Your task to perform on an android device: turn on showing notifications on the lock screen Image 0: 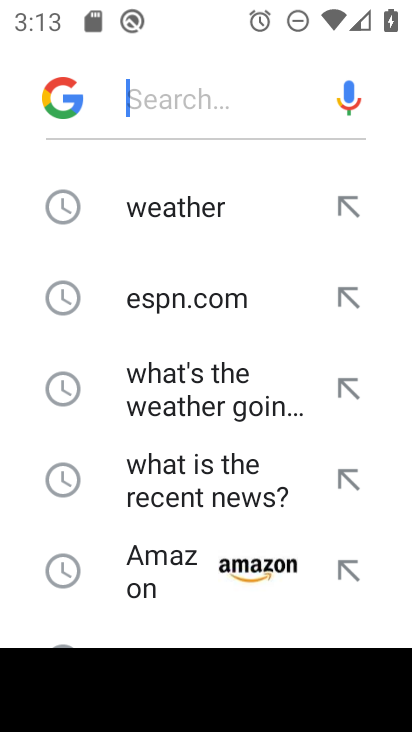
Step 0: press back button
Your task to perform on an android device: turn on showing notifications on the lock screen Image 1: 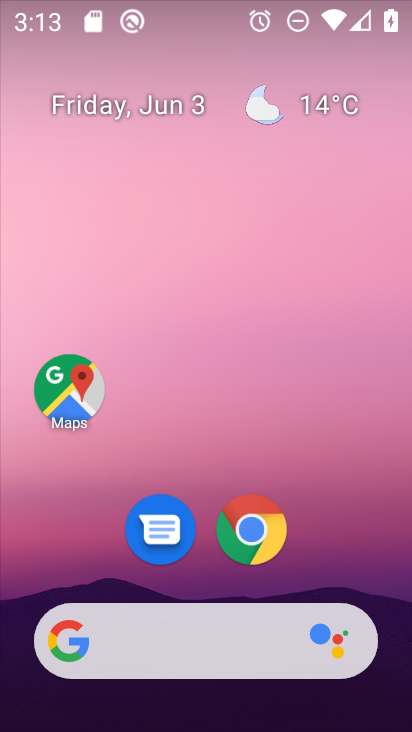
Step 1: drag from (354, 557) to (354, 192)
Your task to perform on an android device: turn on showing notifications on the lock screen Image 2: 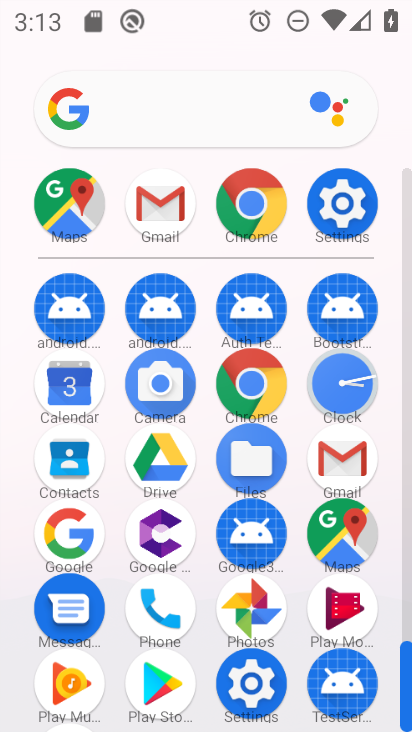
Step 2: click (355, 212)
Your task to perform on an android device: turn on showing notifications on the lock screen Image 3: 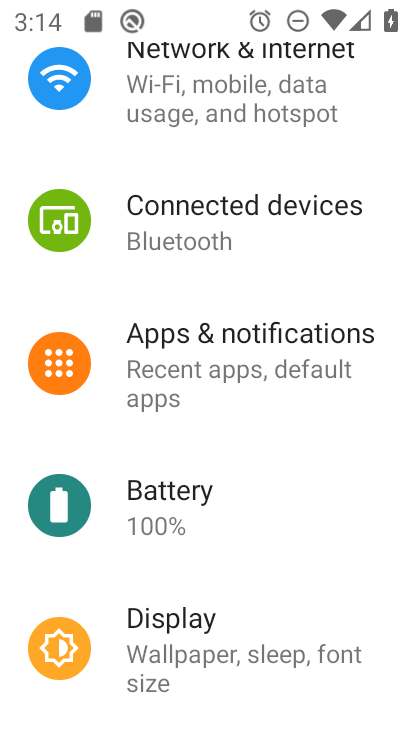
Step 3: drag from (362, 269) to (365, 369)
Your task to perform on an android device: turn on showing notifications on the lock screen Image 4: 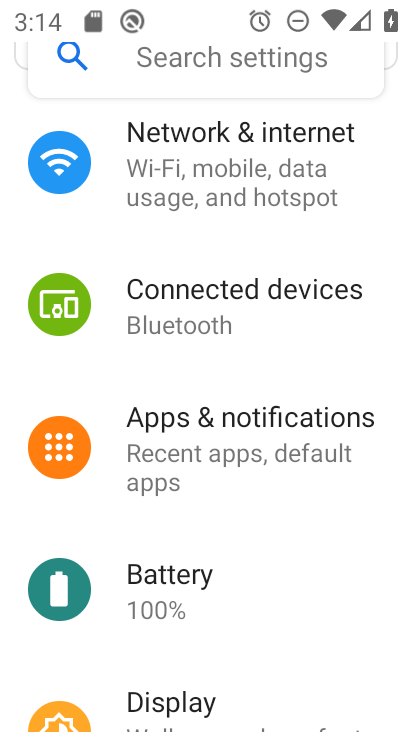
Step 4: drag from (370, 216) to (382, 372)
Your task to perform on an android device: turn on showing notifications on the lock screen Image 5: 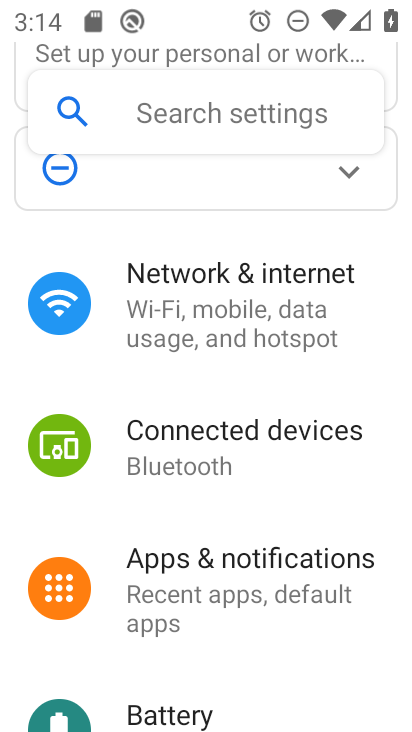
Step 5: drag from (370, 251) to (365, 405)
Your task to perform on an android device: turn on showing notifications on the lock screen Image 6: 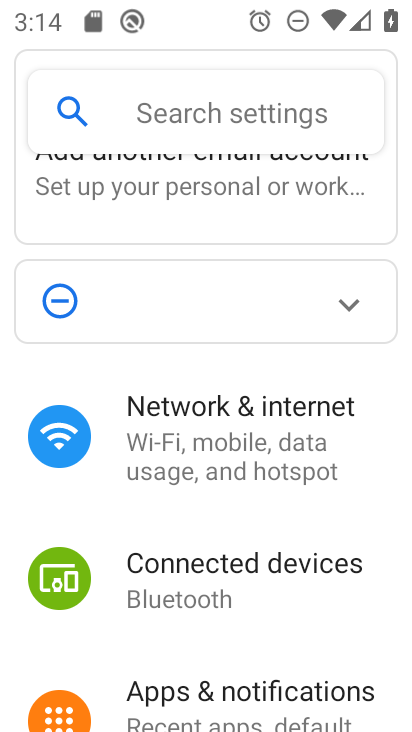
Step 6: drag from (371, 373) to (379, 490)
Your task to perform on an android device: turn on showing notifications on the lock screen Image 7: 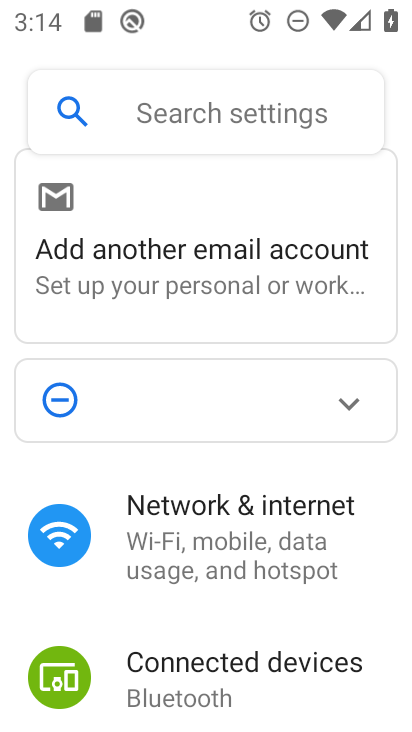
Step 7: drag from (351, 530) to (346, 397)
Your task to perform on an android device: turn on showing notifications on the lock screen Image 8: 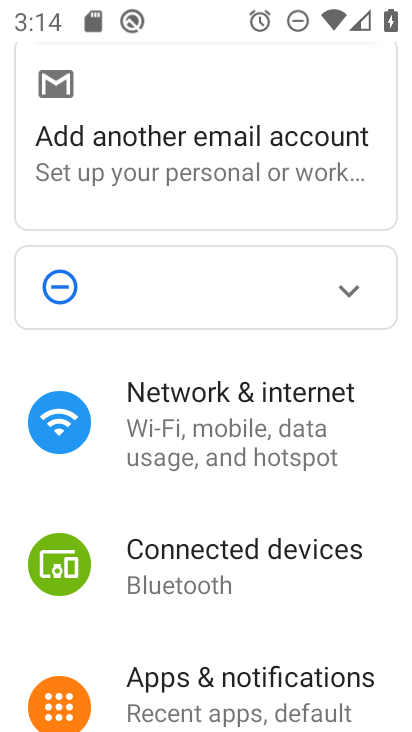
Step 8: drag from (330, 349) to (294, 444)
Your task to perform on an android device: turn on showing notifications on the lock screen Image 9: 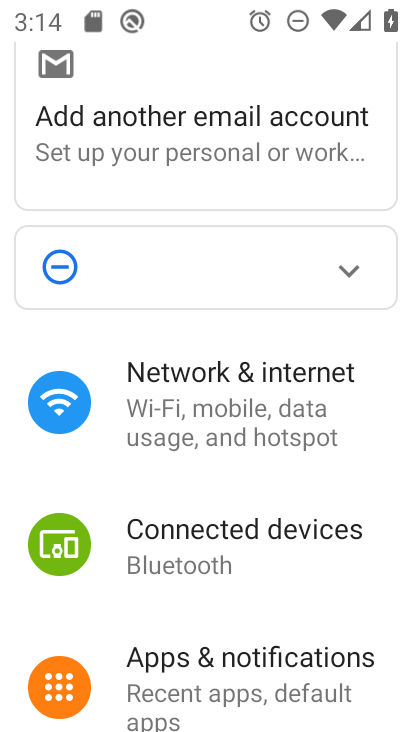
Step 9: click (238, 672)
Your task to perform on an android device: turn on showing notifications on the lock screen Image 10: 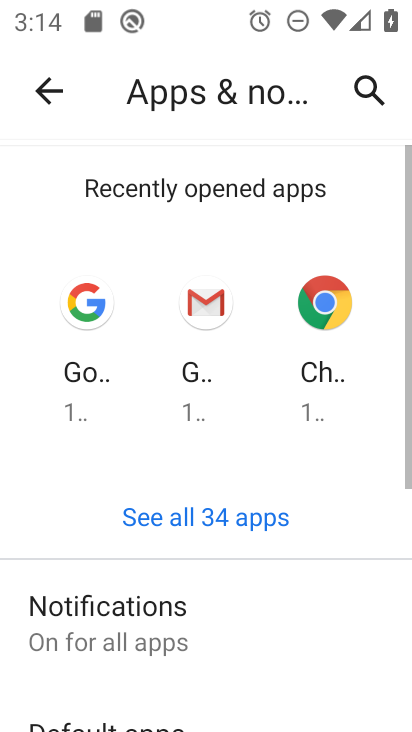
Step 10: drag from (300, 601) to (310, 453)
Your task to perform on an android device: turn on showing notifications on the lock screen Image 11: 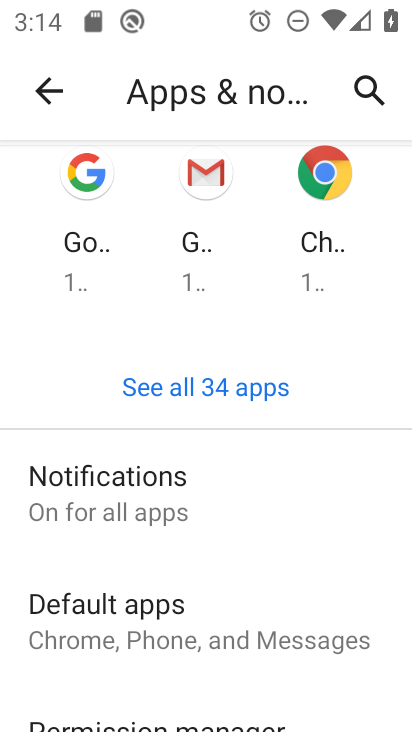
Step 11: drag from (267, 559) to (277, 484)
Your task to perform on an android device: turn on showing notifications on the lock screen Image 12: 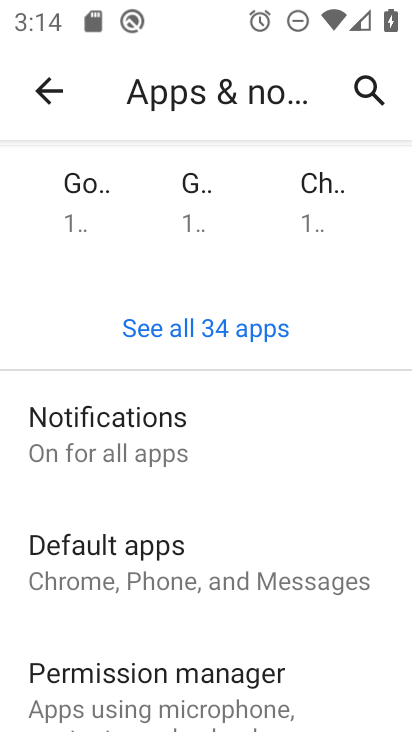
Step 12: click (174, 439)
Your task to perform on an android device: turn on showing notifications on the lock screen Image 13: 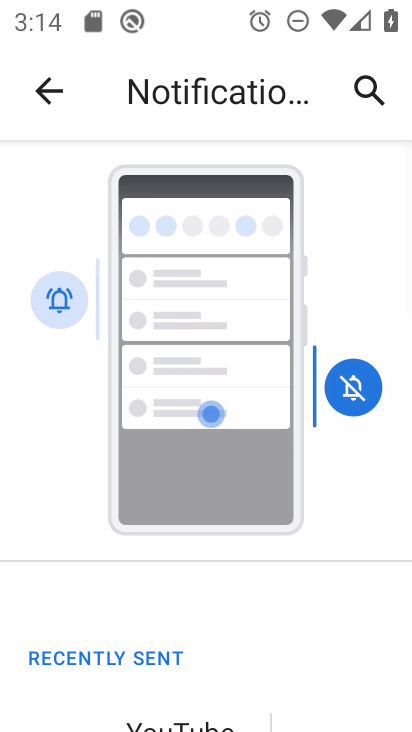
Step 13: drag from (279, 587) to (279, 422)
Your task to perform on an android device: turn on showing notifications on the lock screen Image 14: 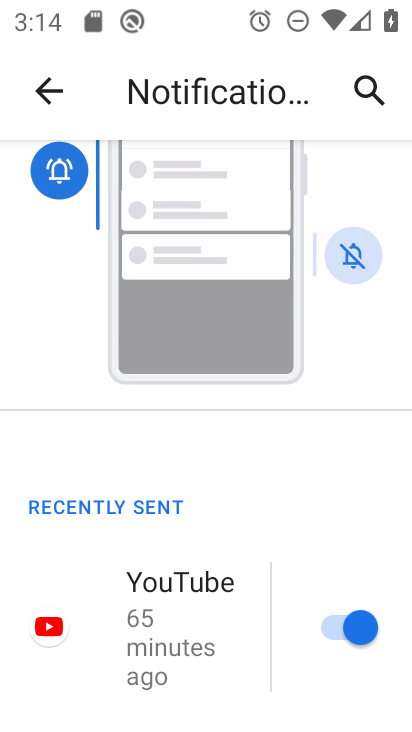
Step 14: drag from (241, 630) to (235, 493)
Your task to perform on an android device: turn on showing notifications on the lock screen Image 15: 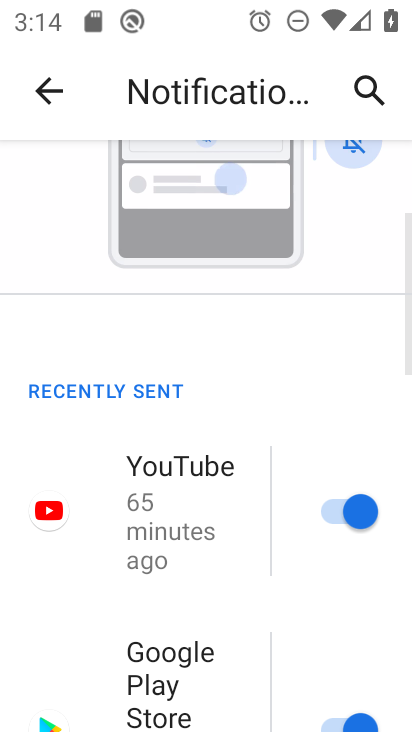
Step 15: drag from (234, 614) to (231, 489)
Your task to perform on an android device: turn on showing notifications on the lock screen Image 16: 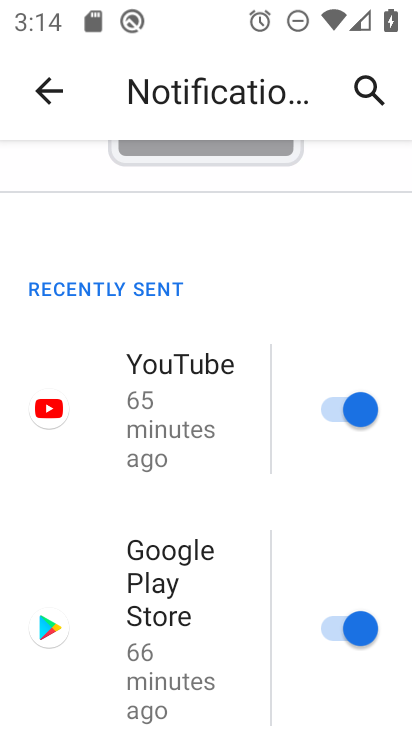
Step 16: drag from (238, 636) to (238, 514)
Your task to perform on an android device: turn on showing notifications on the lock screen Image 17: 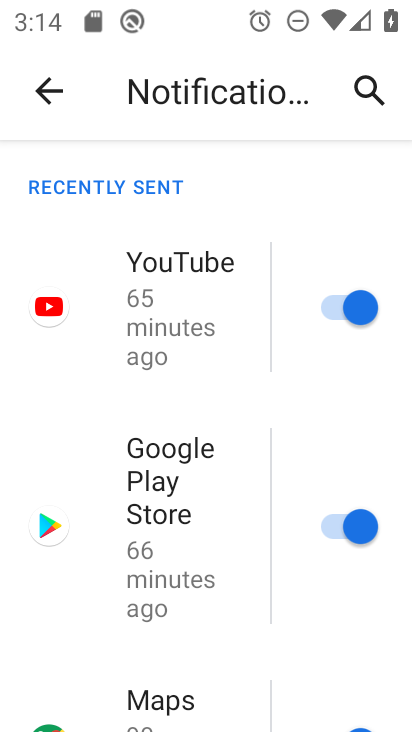
Step 17: click (246, 329)
Your task to perform on an android device: turn on showing notifications on the lock screen Image 18: 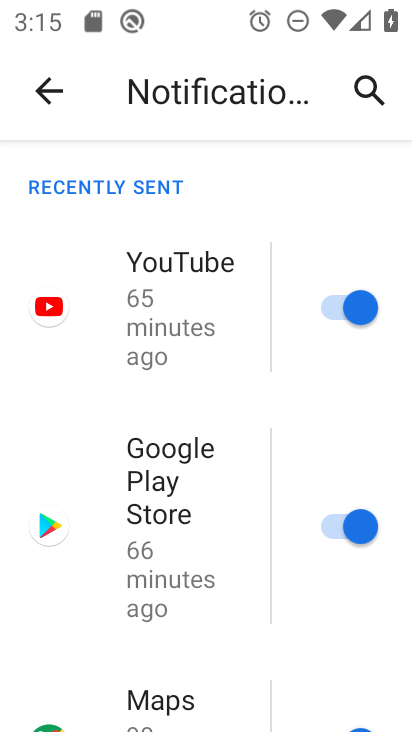
Step 18: drag from (229, 626) to (260, 228)
Your task to perform on an android device: turn on showing notifications on the lock screen Image 19: 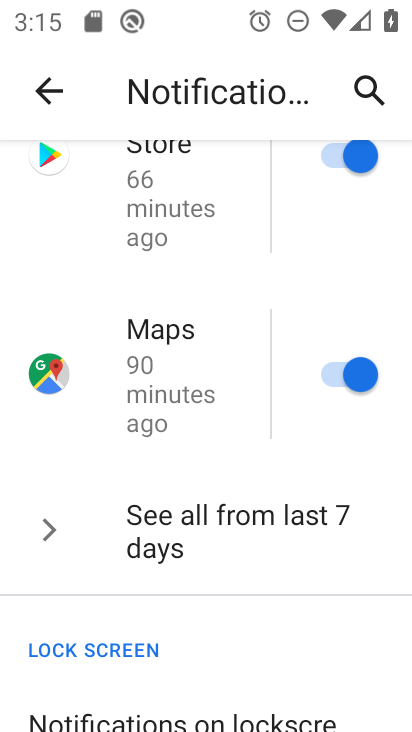
Step 19: drag from (240, 529) to (235, 267)
Your task to perform on an android device: turn on showing notifications on the lock screen Image 20: 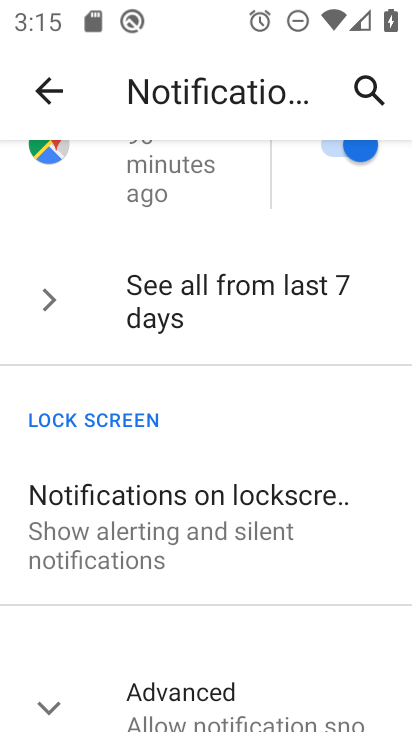
Step 20: click (173, 548)
Your task to perform on an android device: turn on showing notifications on the lock screen Image 21: 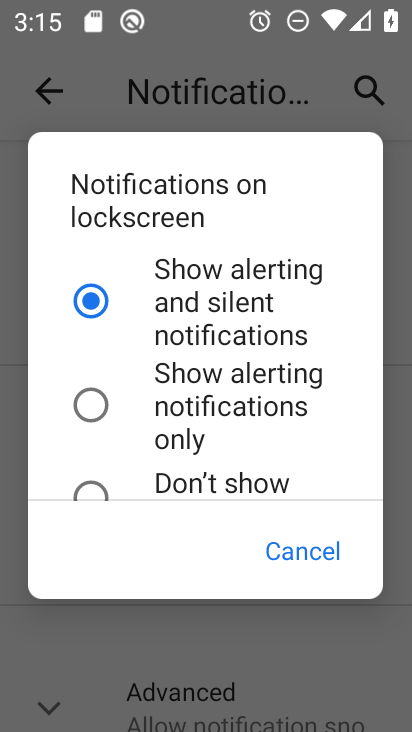
Step 21: task complete